Your task to perform on an android device: turn on notifications settings in the gmail app Image 0: 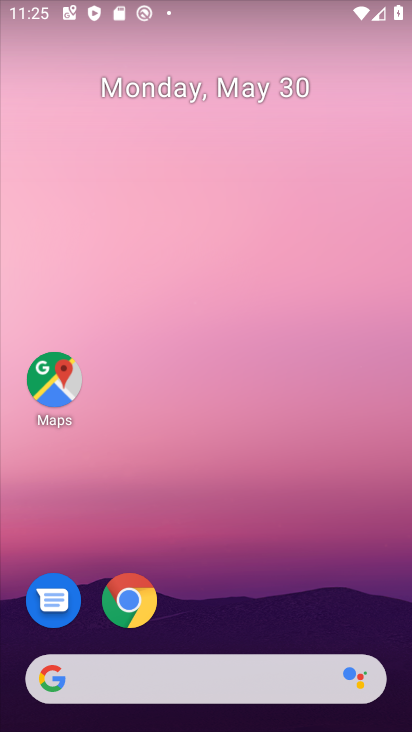
Step 0: drag from (227, 728) to (227, 491)
Your task to perform on an android device: turn on notifications settings in the gmail app Image 1: 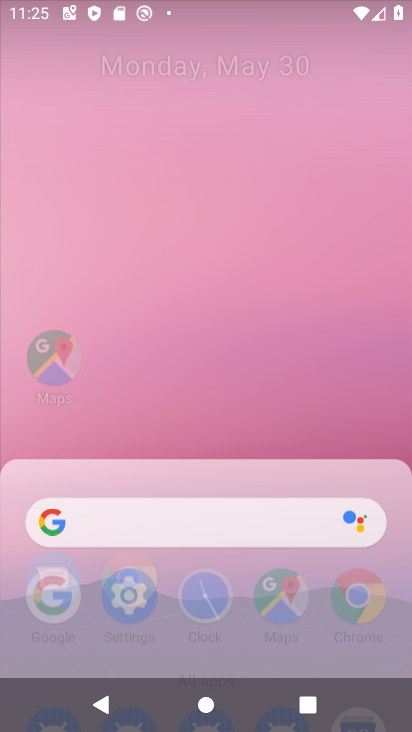
Step 1: click (223, 106)
Your task to perform on an android device: turn on notifications settings in the gmail app Image 2: 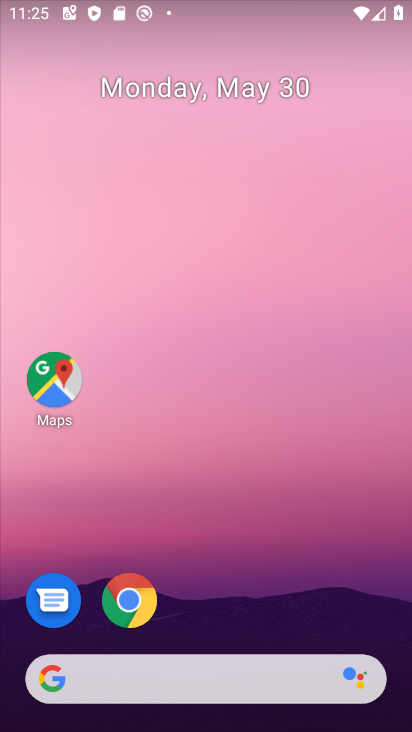
Step 2: drag from (222, 706) to (215, 630)
Your task to perform on an android device: turn on notifications settings in the gmail app Image 3: 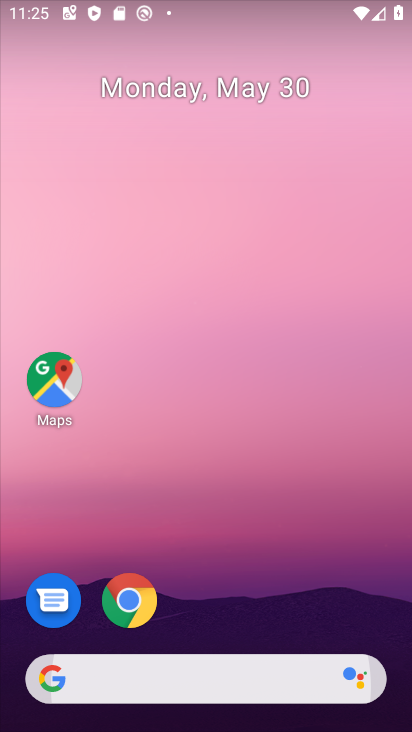
Step 3: drag from (215, 283) to (214, 15)
Your task to perform on an android device: turn on notifications settings in the gmail app Image 4: 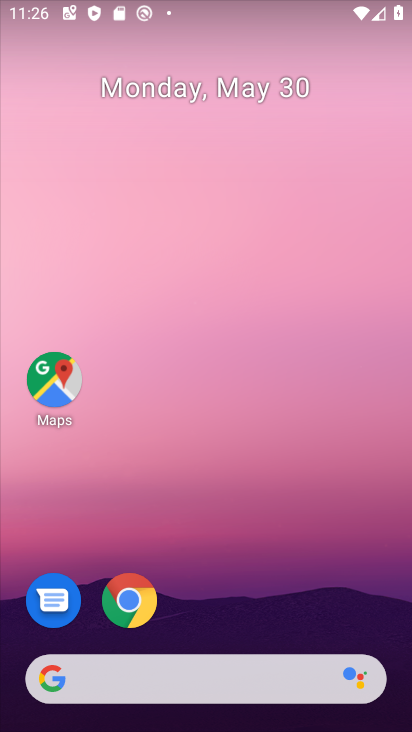
Step 4: drag from (267, 727) to (264, 1)
Your task to perform on an android device: turn on notifications settings in the gmail app Image 5: 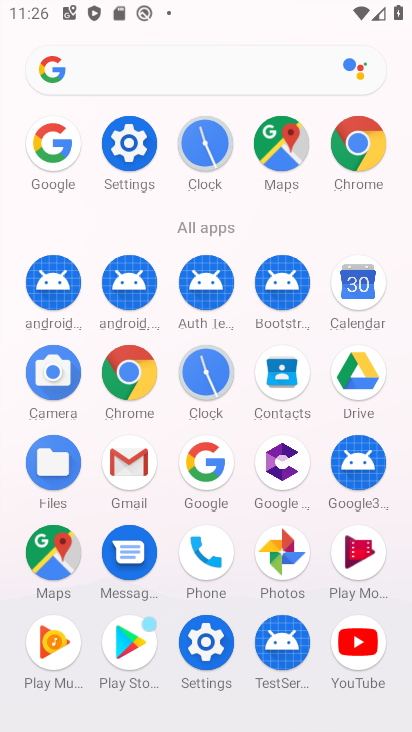
Step 5: click (126, 464)
Your task to perform on an android device: turn on notifications settings in the gmail app Image 6: 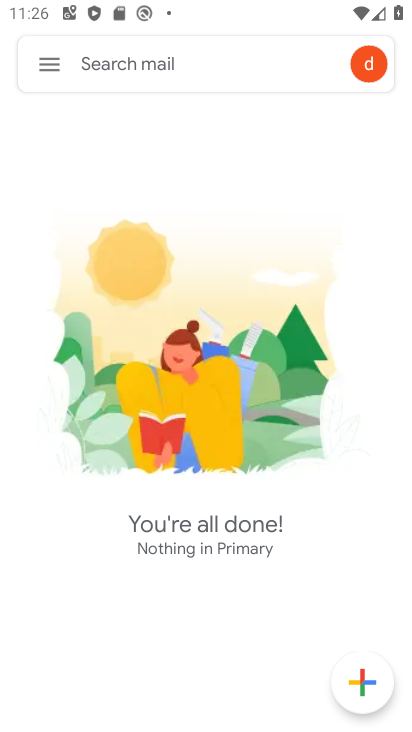
Step 6: click (51, 62)
Your task to perform on an android device: turn on notifications settings in the gmail app Image 7: 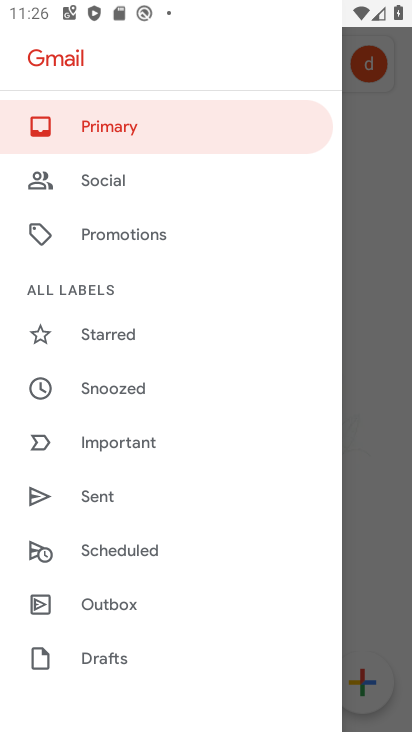
Step 7: drag from (123, 671) to (112, 153)
Your task to perform on an android device: turn on notifications settings in the gmail app Image 8: 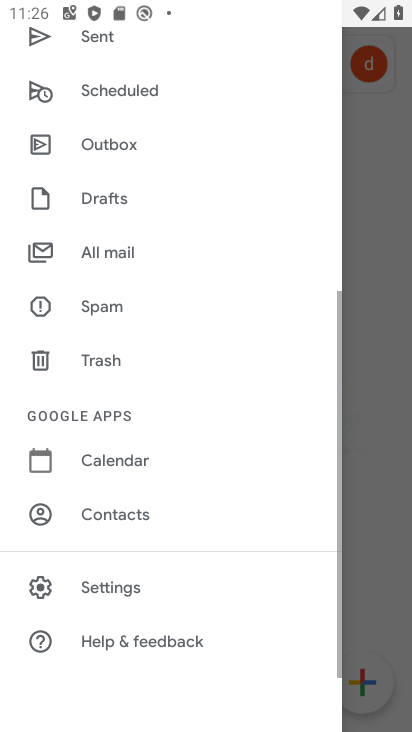
Step 8: click (114, 581)
Your task to perform on an android device: turn on notifications settings in the gmail app Image 9: 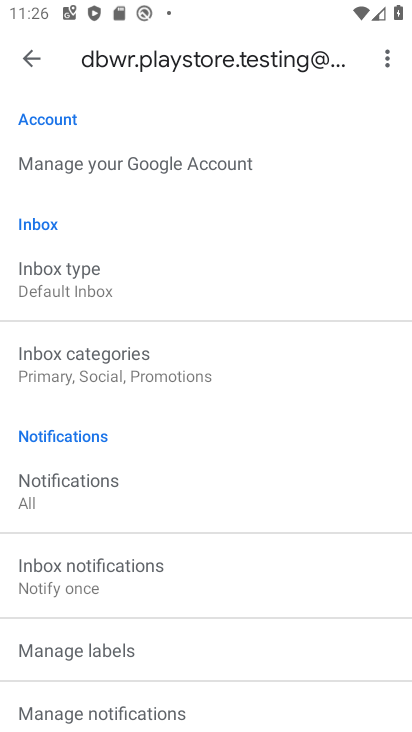
Step 9: task complete